Your task to perform on an android device: Open the calendar app, open the side menu, and click the "Day" option Image 0: 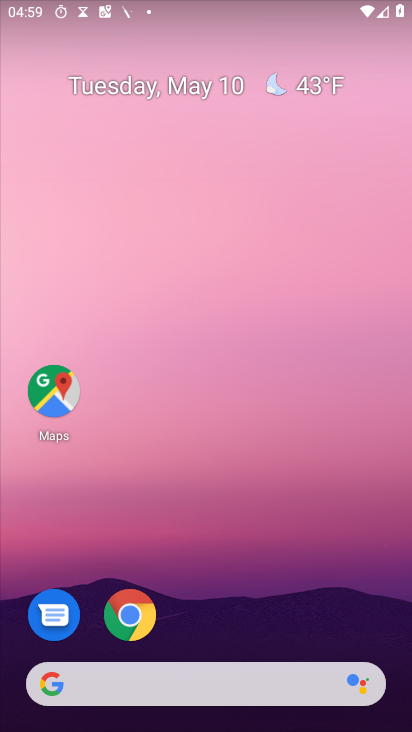
Step 0: drag from (315, 637) to (345, 91)
Your task to perform on an android device: Open the calendar app, open the side menu, and click the "Day" option Image 1: 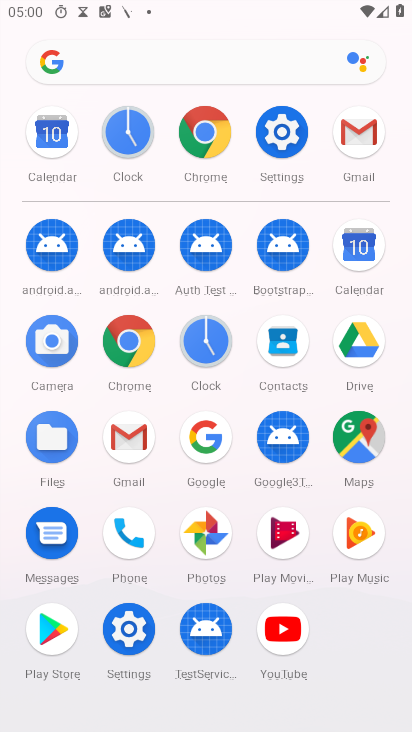
Step 1: click (366, 255)
Your task to perform on an android device: Open the calendar app, open the side menu, and click the "Day" option Image 2: 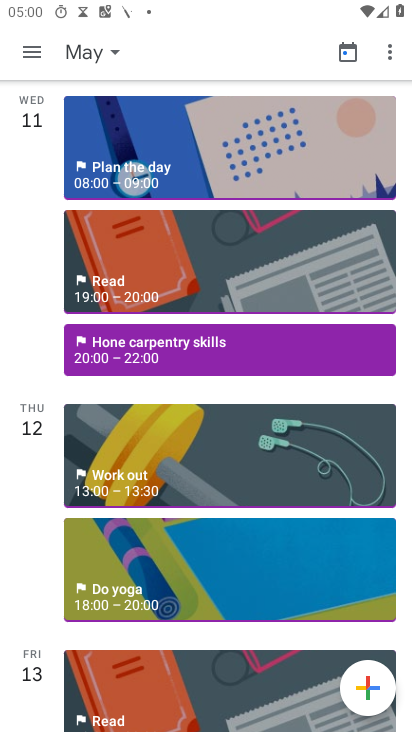
Step 2: click (115, 47)
Your task to perform on an android device: Open the calendar app, open the side menu, and click the "Day" option Image 3: 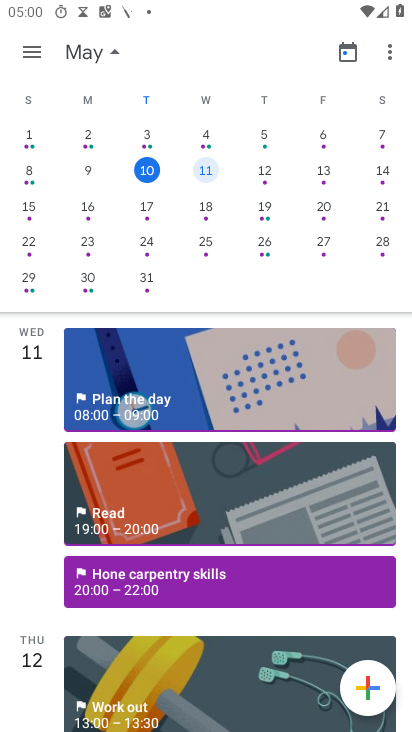
Step 3: click (37, 52)
Your task to perform on an android device: Open the calendar app, open the side menu, and click the "Day" option Image 4: 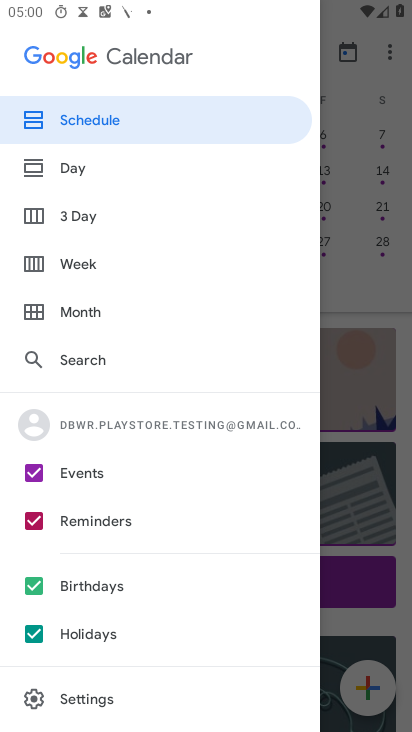
Step 4: click (82, 172)
Your task to perform on an android device: Open the calendar app, open the side menu, and click the "Day" option Image 5: 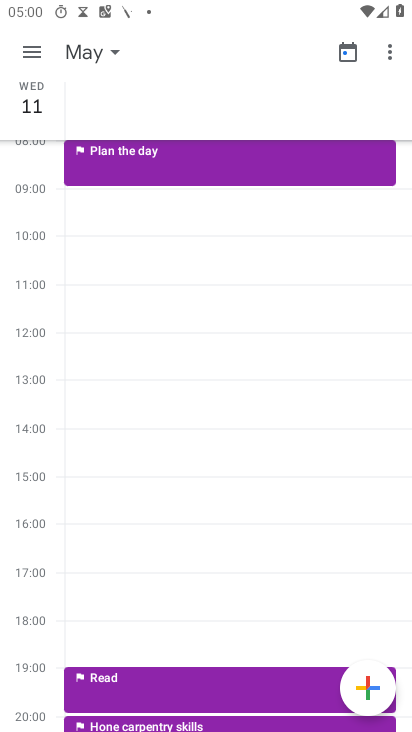
Step 5: task complete